Your task to perform on an android device: Open Google Chrome and open the bookmarks view Image 0: 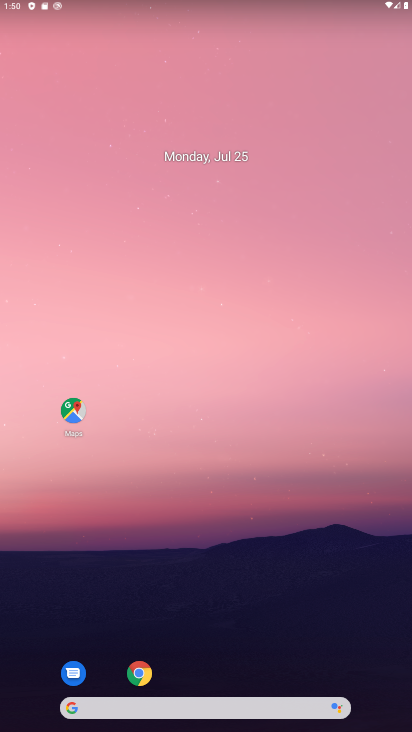
Step 0: click (133, 669)
Your task to perform on an android device: Open Google Chrome and open the bookmarks view Image 1: 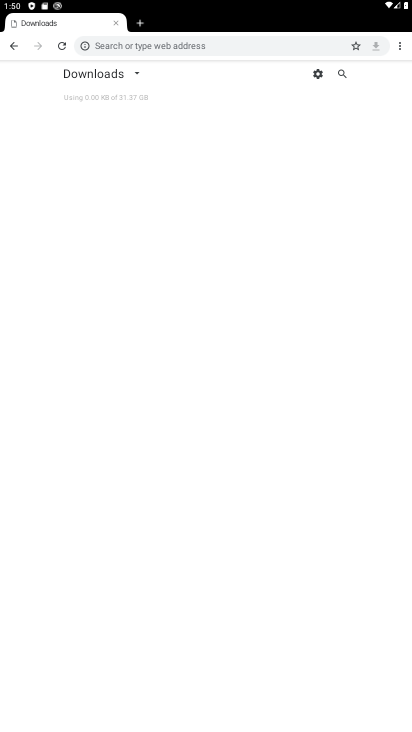
Step 1: click (404, 49)
Your task to perform on an android device: Open Google Chrome and open the bookmarks view Image 2: 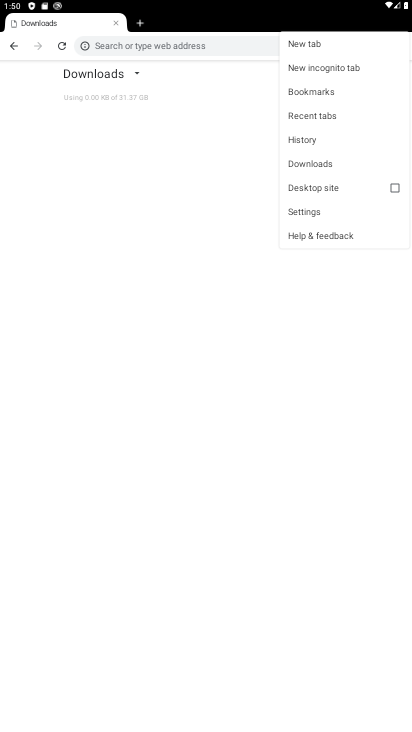
Step 2: click (340, 96)
Your task to perform on an android device: Open Google Chrome and open the bookmarks view Image 3: 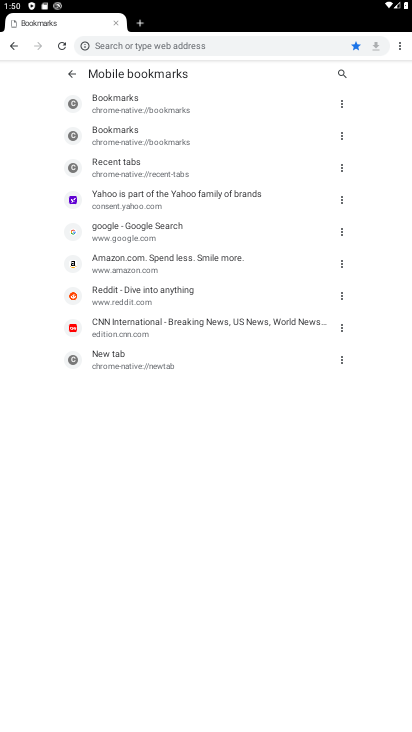
Step 3: task complete